Your task to perform on an android device: open sync settings in chrome Image 0: 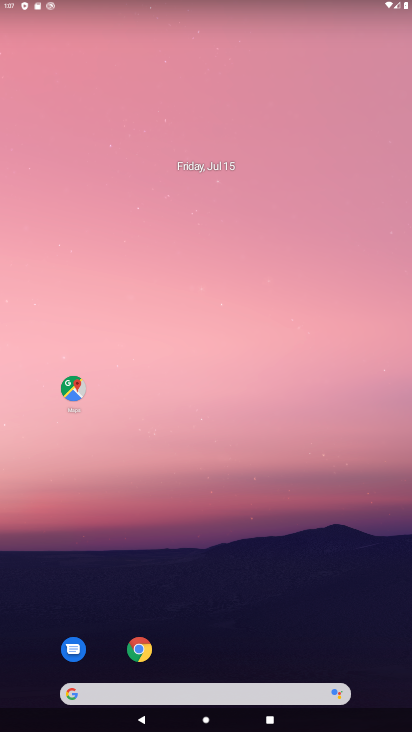
Step 0: drag from (304, 131) to (321, 0)
Your task to perform on an android device: open sync settings in chrome Image 1: 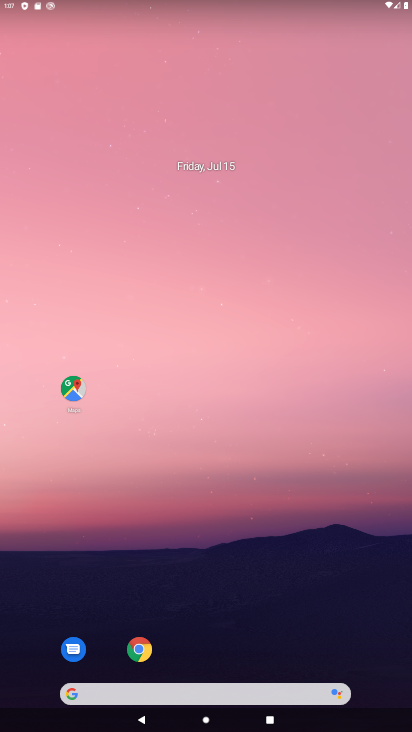
Step 1: drag from (273, 667) to (248, 608)
Your task to perform on an android device: open sync settings in chrome Image 2: 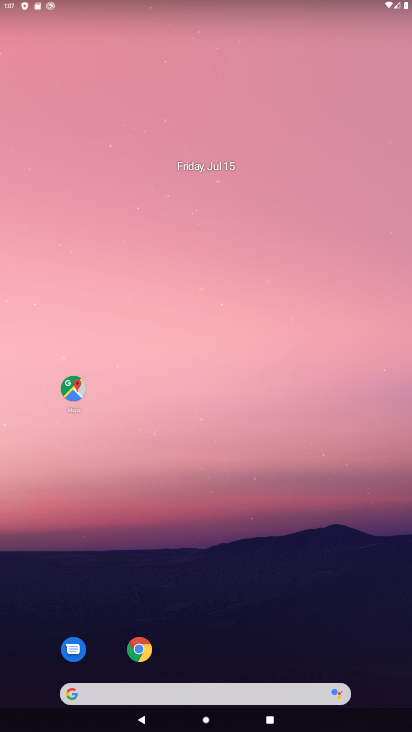
Step 2: drag from (225, 684) to (261, 12)
Your task to perform on an android device: open sync settings in chrome Image 3: 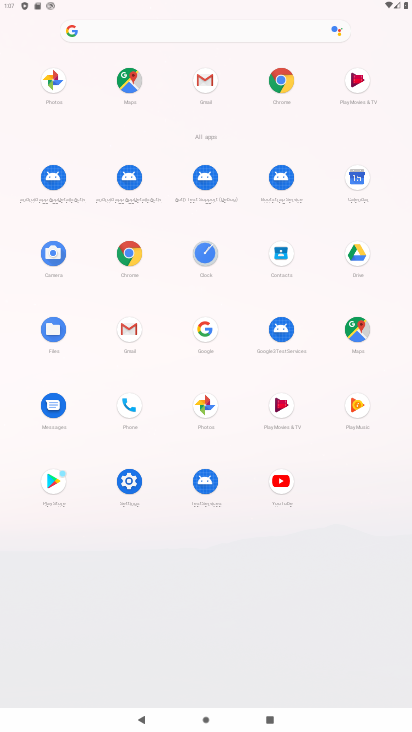
Step 3: click (123, 252)
Your task to perform on an android device: open sync settings in chrome Image 4: 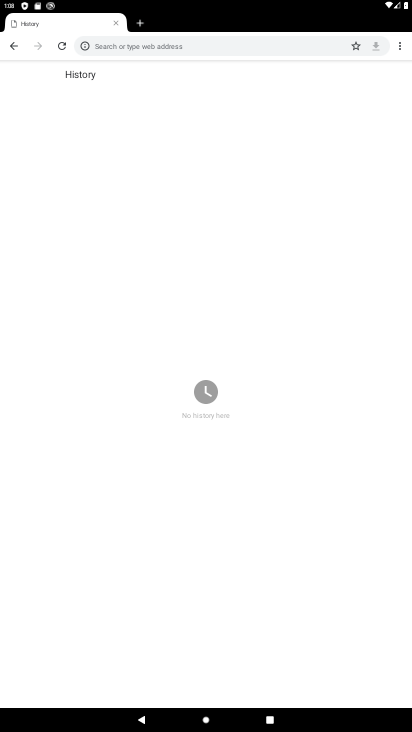
Step 4: drag from (399, 44) to (321, 206)
Your task to perform on an android device: open sync settings in chrome Image 5: 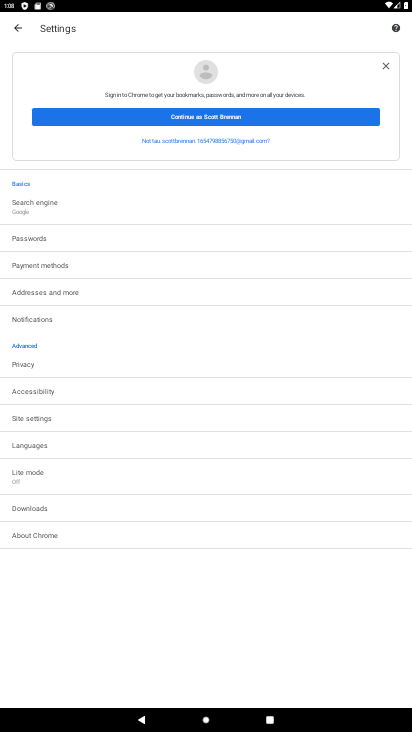
Step 5: click (45, 421)
Your task to perform on an android device: open sync settings in chrome Image 6: 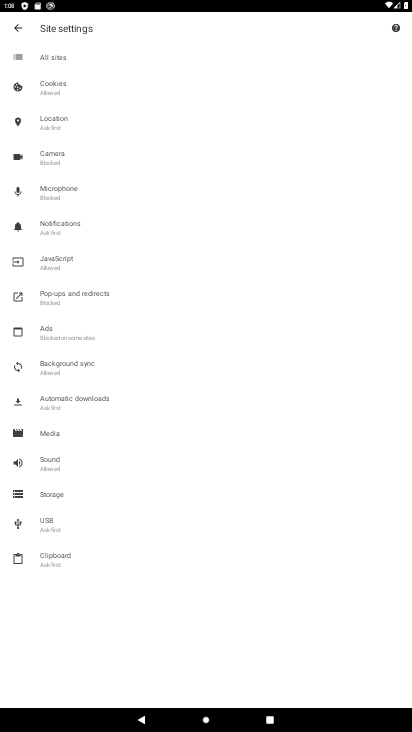
Step 6: click (79, 364)
Your task to perform on an android device: open sync settings in chrome Image 7: 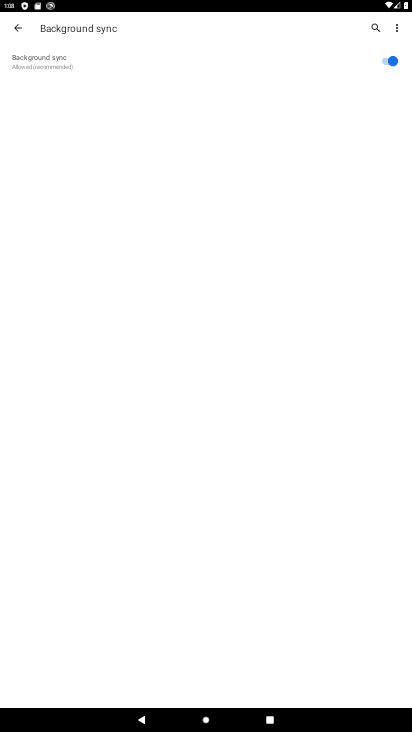
Step 7: task complete